Your task to perform on an android device: What's the news today? Image 0: 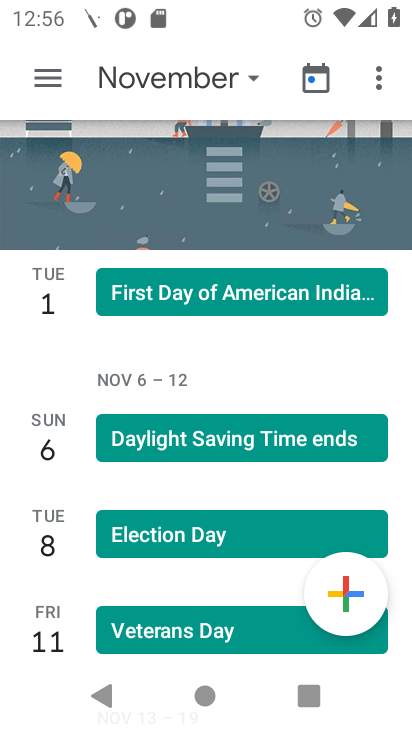
Step 0: press home button
Your task to perform on an android device: What's the news today? Image 1: 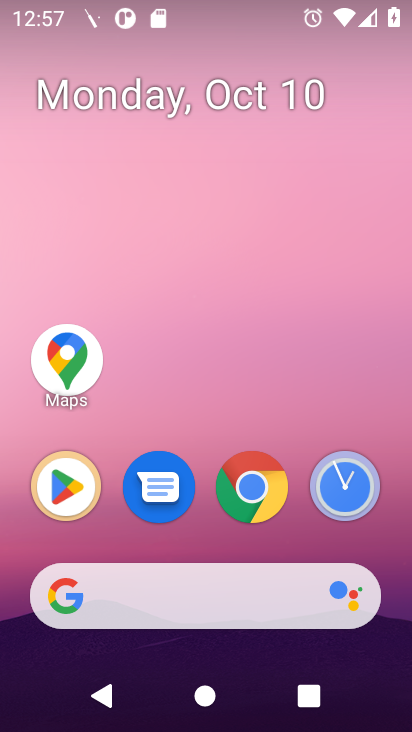
Step 1: click (256, 504)
Your task to perform on an android device: What's the news today? Image 2: 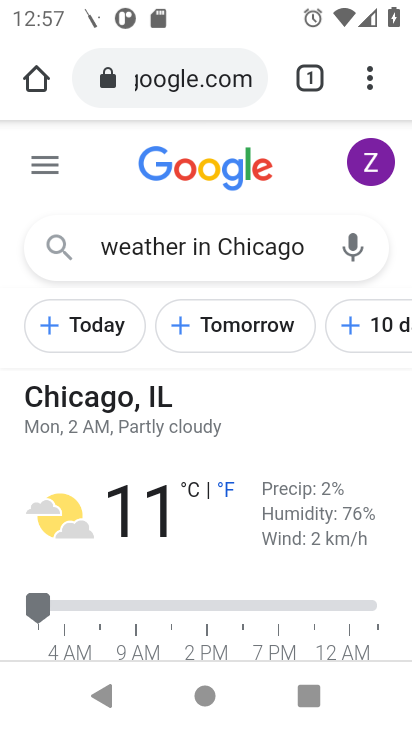
Step 2: click (175, 92)
Your task to perform on an android device: What's the news today? Image 3: 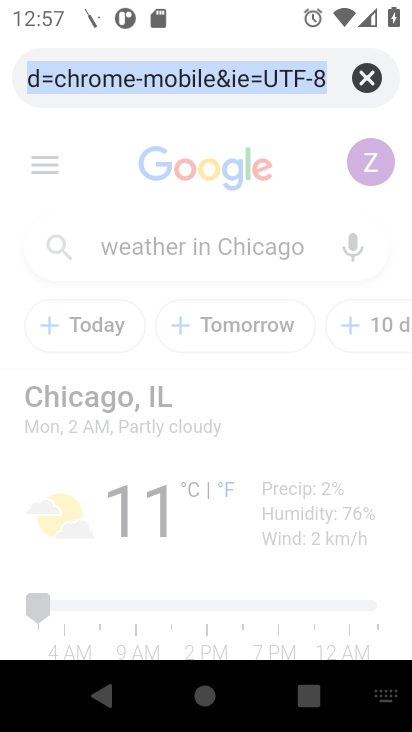
Step 3: type "what is the news today"
Your task to perform on an android device: What's the news today? Image 4: 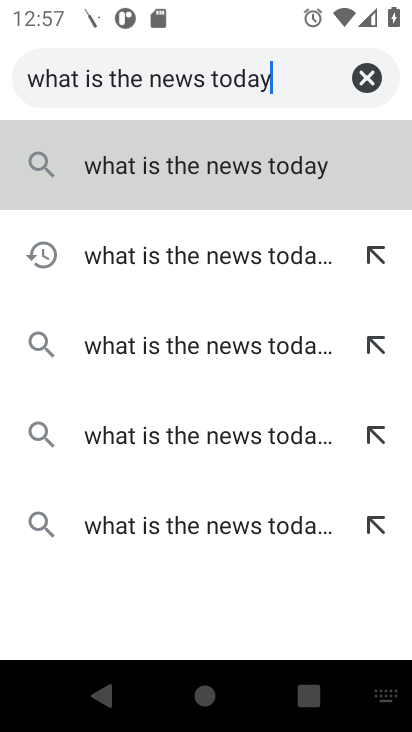
Step 4: type ""
Your task to perform on an android device: What's the news today? Image 5: 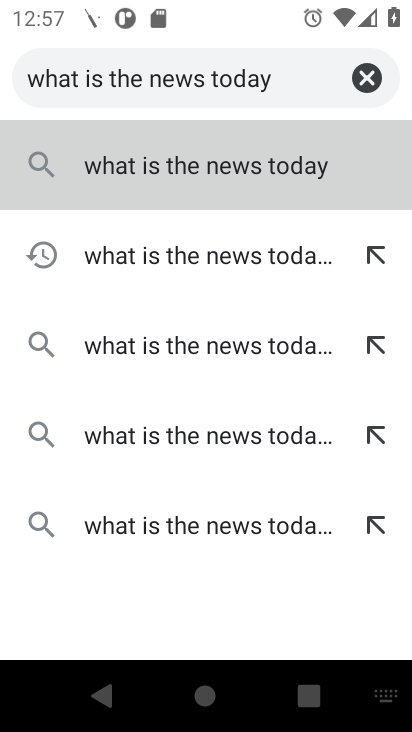
Step 5: press enter
Your task to perform on an android device: What's the news today? Image 6: 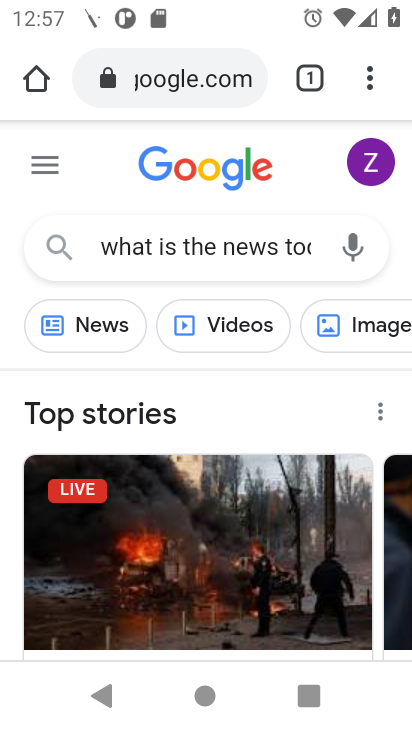
Step 6: drag from (253, 488) to (273, 130)
Your task to perform on an android device: What's the news today? Image 7: 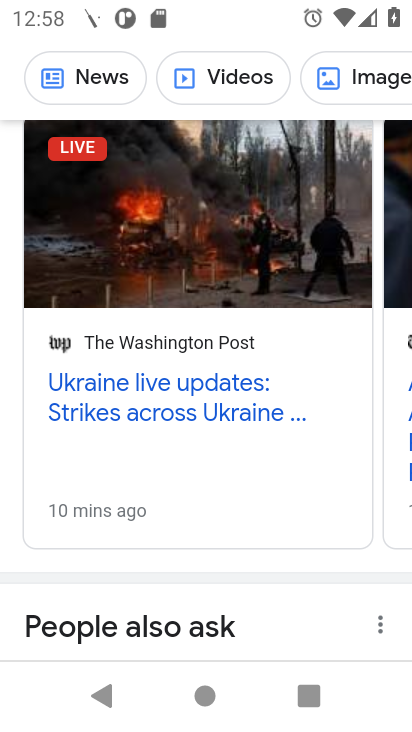
Step 7: click (294, 561)
Your task to perform on an android device: What's the news today? Image 8: 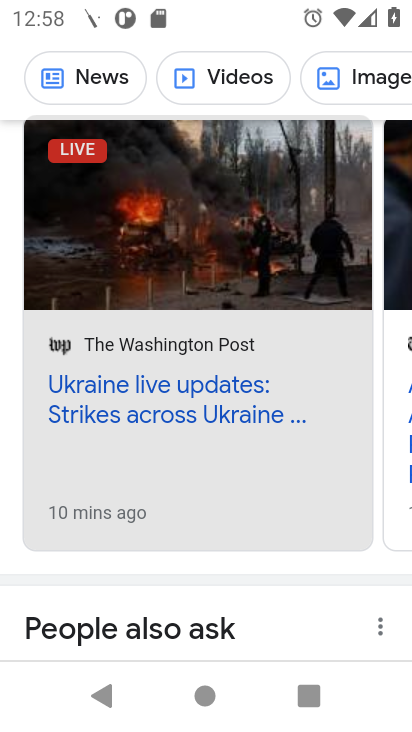
Step 8: drag from (293, 223) to (272, 630)
Your task to perform on an android device: What's the news today? Image 9: 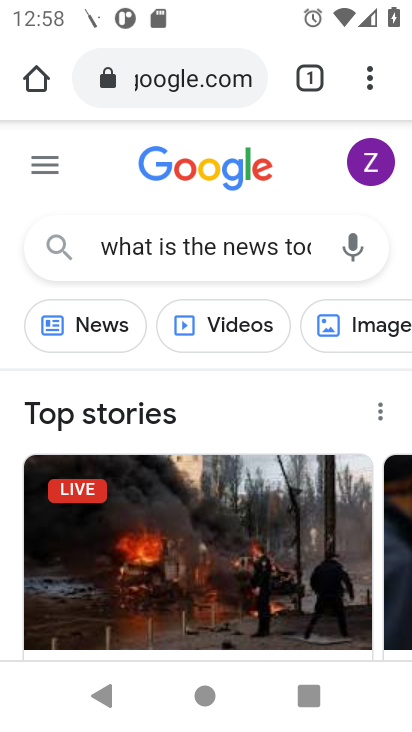
Step 9: drag from (239, 457) to (230, 358)
Your task to perform on an android device: What's the news today? Image 10: 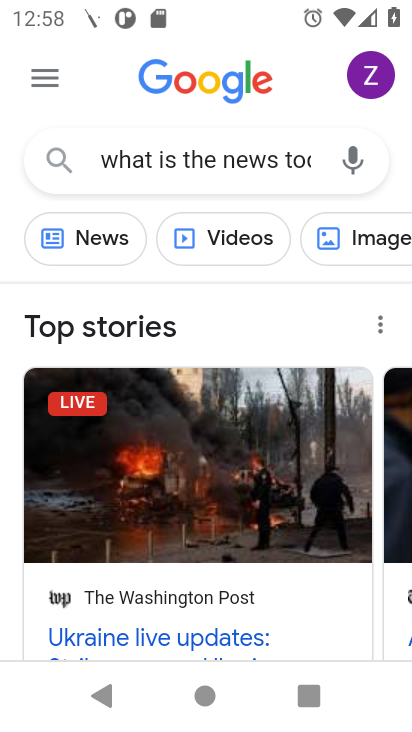
Step 10: click (52, 255)
Your task to perform on an android device: What's the news today? Image 11: 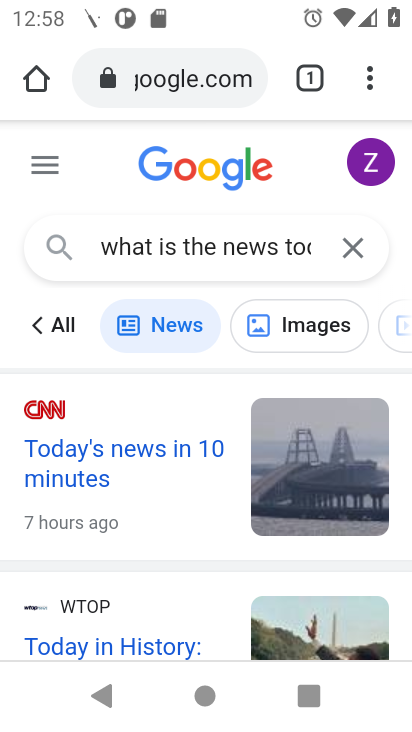
Step 11: task complete